Your task to perform on an android device: snooze an email in the gmail app Image 0: 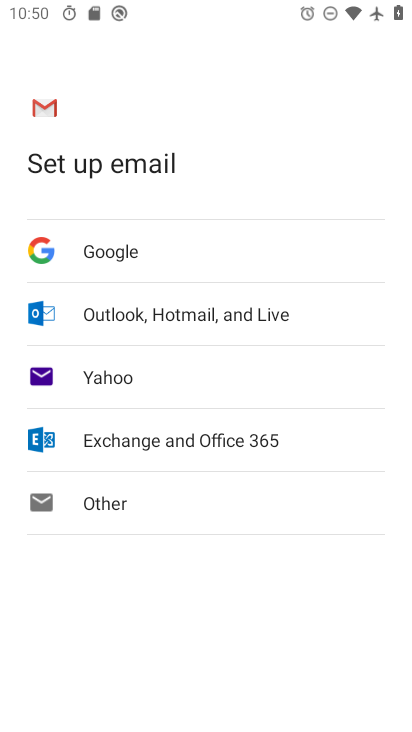
Step 0: press home button
Your task to perform on an android device: snooze an email in the gmail app Image 1: 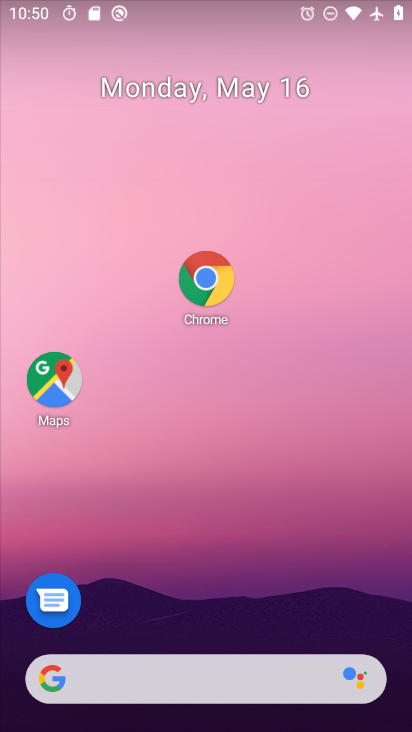
Step 1: drag from (217, 685) to (332, 336)
Your task to perform on an android device: snooze an email in the gmail app Image 2: 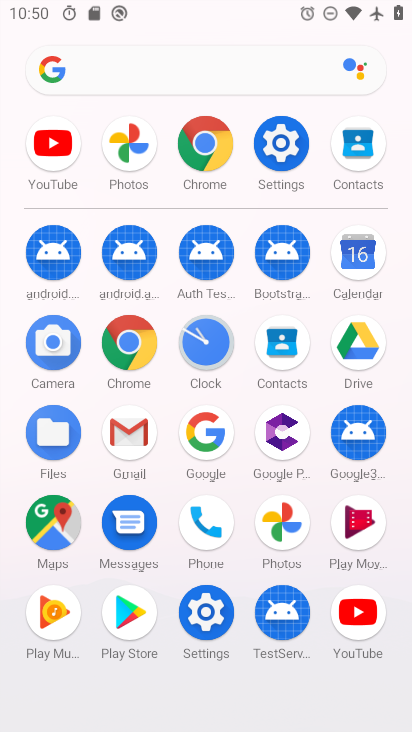
Step 2: click (128, 432)
Your task to perform on an android device: snooze an email in the gmail app Image 3: 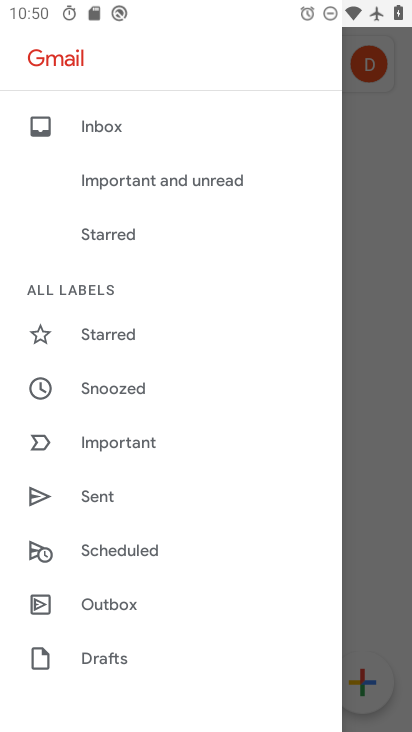
Step 3: click (368, 491)
Your task to perform on an android device: snooze an email in the gmail app Image 4: 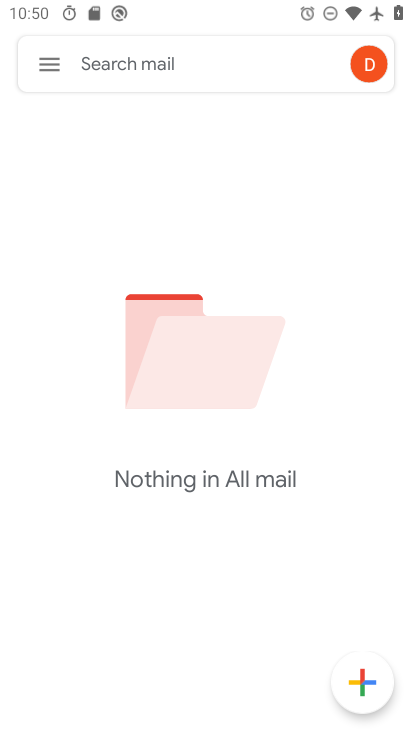
Step 4: task complete